Your task to perform on an android device: Open the calendar and show me this week's events Image 0: 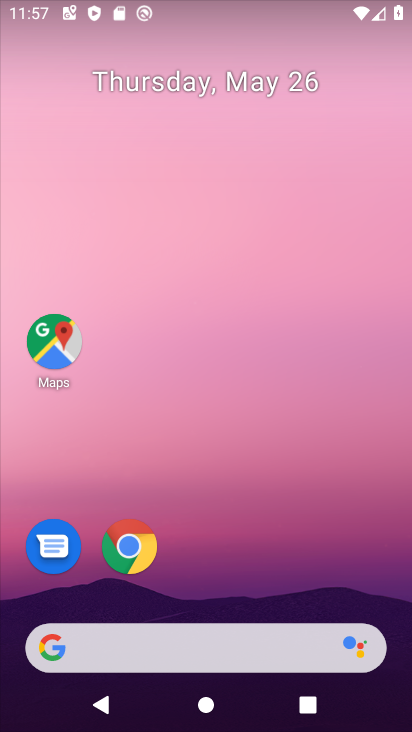
Step 0: drag from (280, 549) to (99, 2)
Your task to perform on an android device: Open the calendar and show me this week's events Image 1: 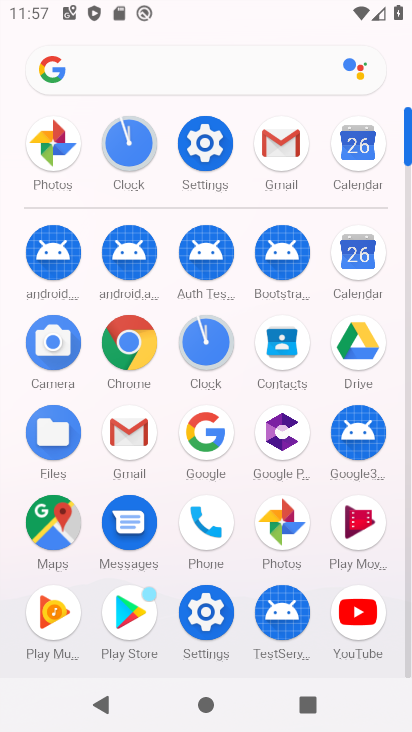
Step 1: click (356, 254)
Your task to perform on an android device: Open the calendar and show me this week's events Image 2: 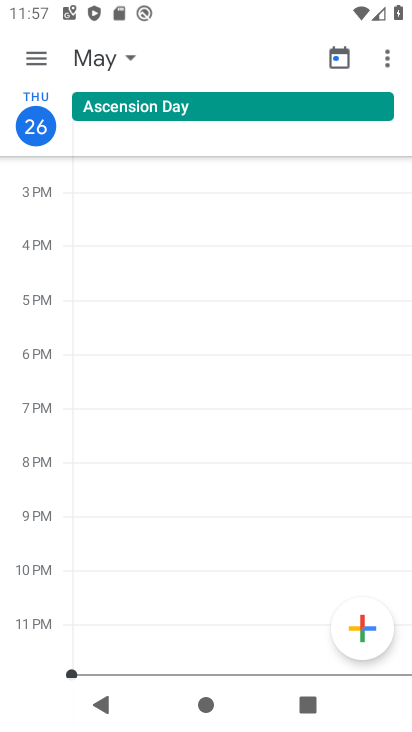
Step 2: click (40, 57)
Your task to perform on an android device: Open the calendar and show me this week's events Image 3: 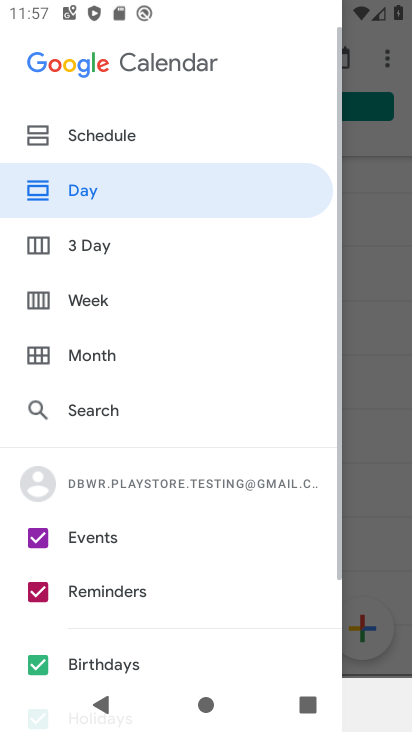
Step 3: click (89, 307)
Your task to perform on an android device: Open the calendar and show me this week's events Image 4: 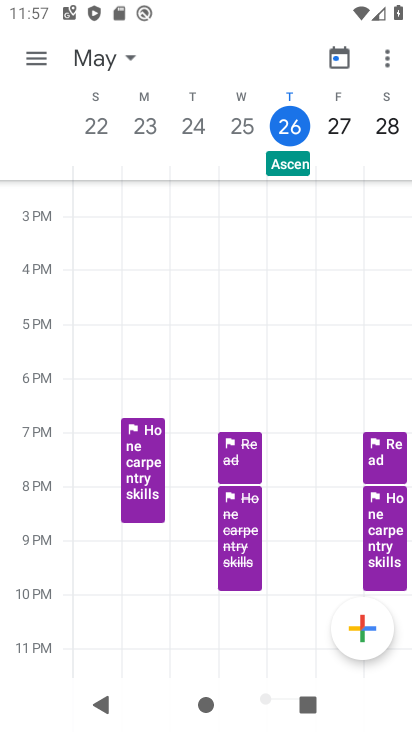
Step 4: task complete